Your task to perform on an android device: turn on location history Image 0: 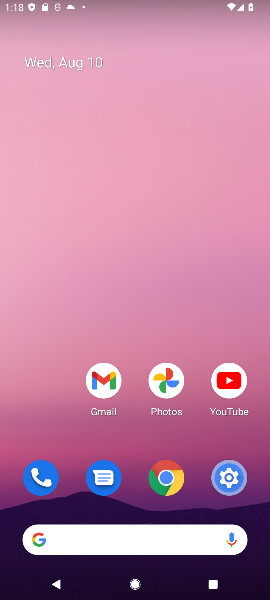
Step 0: drag from (62, 393) to (141, 12)
Your task to perform on an android device: turn on location history Image 1: 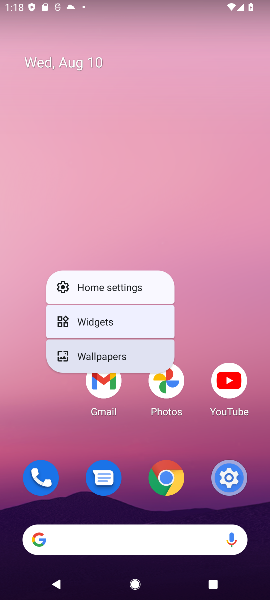
Step 1: click (213, 242)
Your task to perform on an android device: turn on location history Image 2: 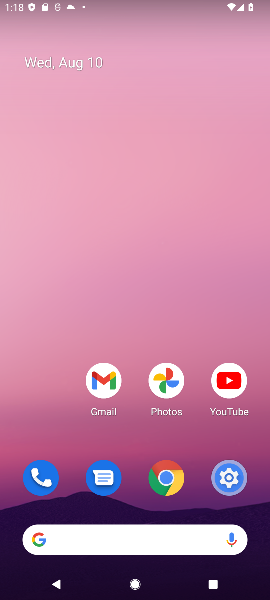
Step 2: drag from (170, 267) to (166, 151)
Your task to perform on an android device: turn on location history Image 3: 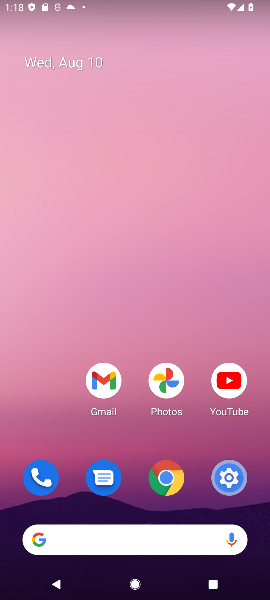
Step 3: click (166, 151)
Your task to perform on an android device: turn on location history Image 4: 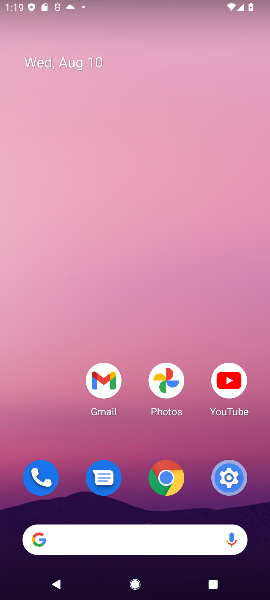
Step 4: task complete